Your task to perform on an android device: toggle airplane mode Image 0: 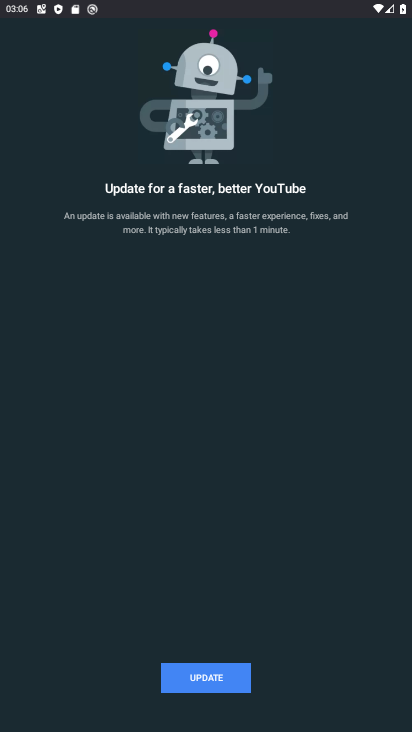
Step 0: press back button
Your task to perform on an android device: toggle airplane mode Image 1: 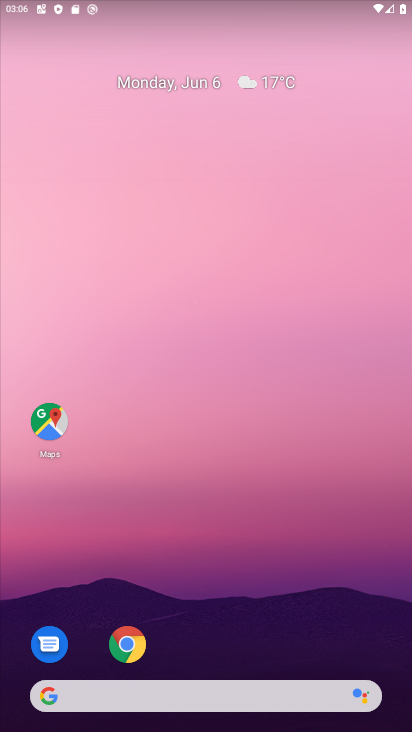
Step 1: drag from (386, 678) to (410, 51)
Your task to perform on an android device: toggle airplane mode Image 2: 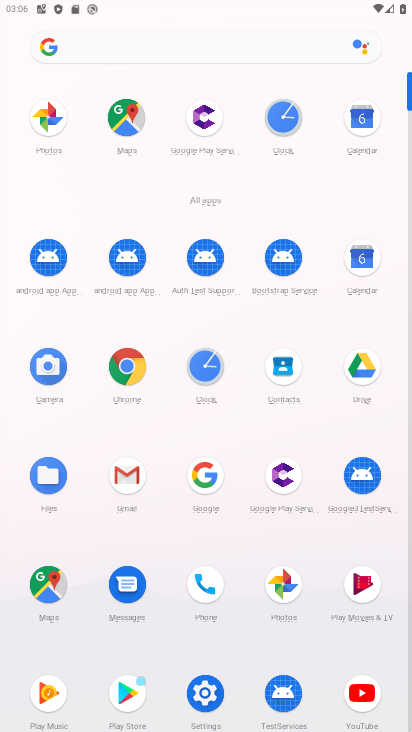
Step 2: click (207, 691)
Your task to perform on an android device: toggle airplane mode Image 3: 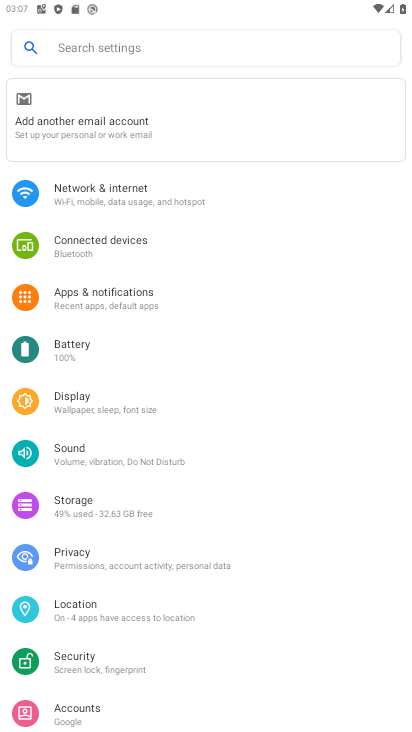
Step 3: click (156, 191)
Your task to perform on an android device: toggle airplane mode Image 4: 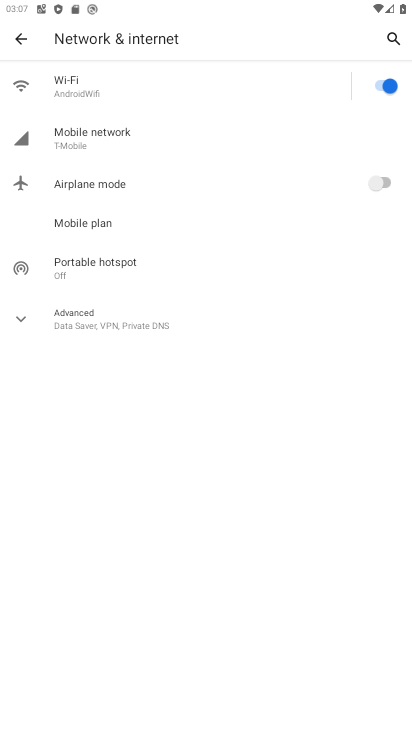
Step 4: click (379, 179)
Your task to perform on an android device: toggle airplane mode Image 5: 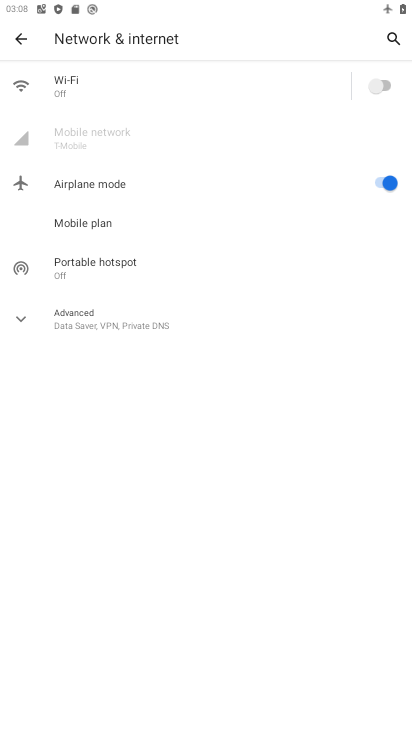
Step 5: task complete